Your task to perform on an android device: find which apps use the phone's location Image 0: 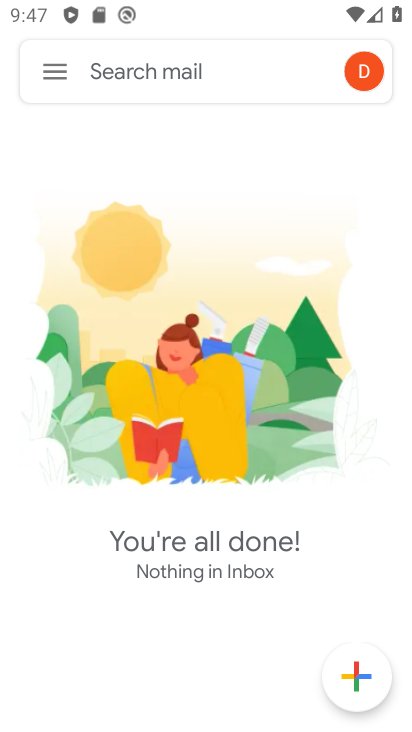
Step 0: press home button
Your task to perform on an android device: find which apps use the phone's location Image 1: 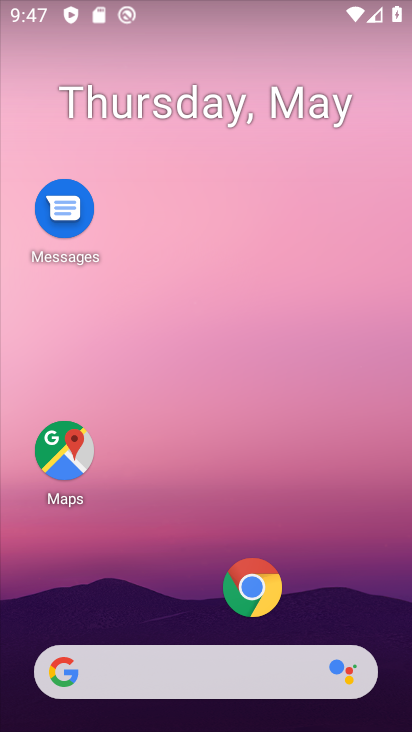
Step 1: drag from (177, 633) to (272, 34)
Your task to perform on an android device: find which apps use the phone's location Image 2: 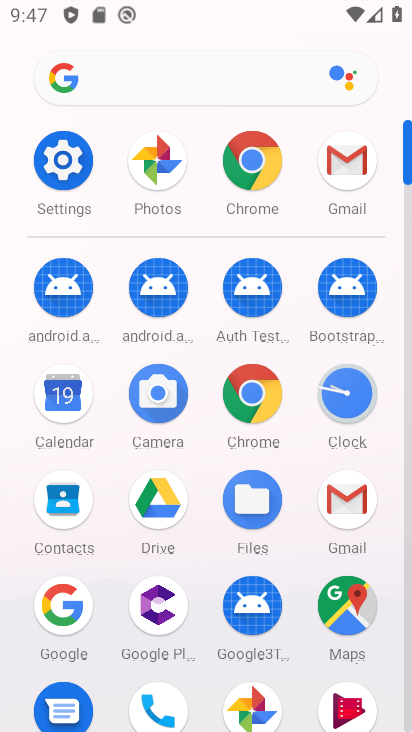
Step 2: click (74, 171)
Your task to perform on an android device: find which apps use the phone's location Image 3: 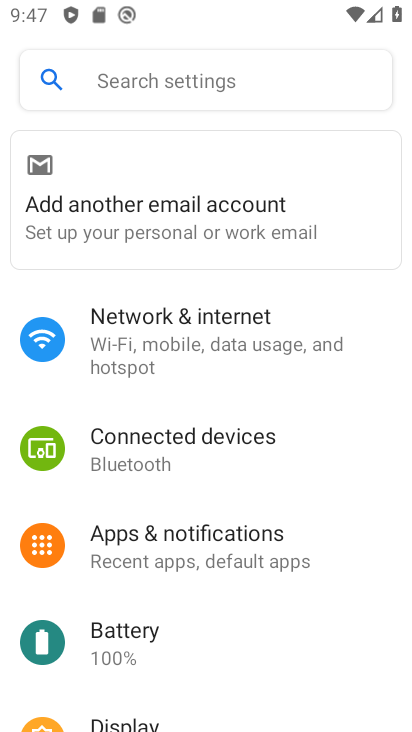
Step 3: drag from (152, 612) to (127, 170)
Your task to perform on an android device: find which apps use the phone's location Image 4: 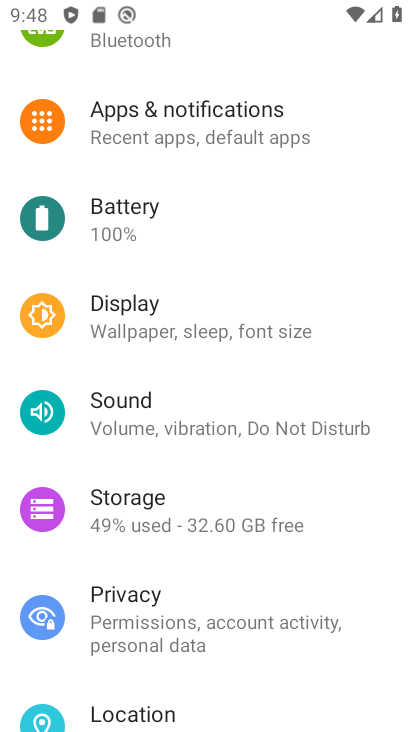
Step 4: click (135, 701)
Your task to perform on an android device: find which apps use the phone's location Image 5: 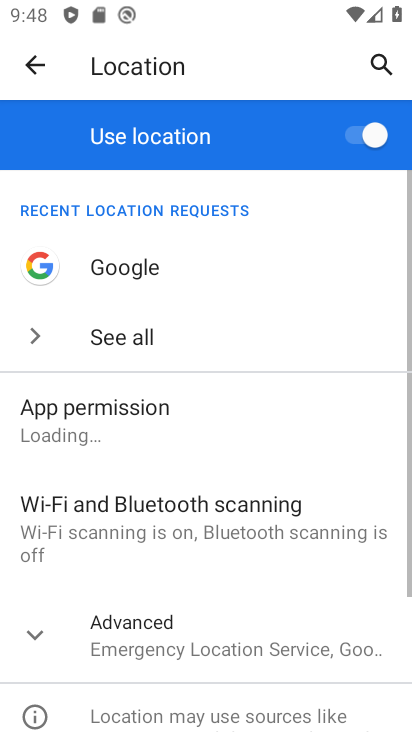
Step 5: click (106, 430)
Your task to perform on an android device: find which apps use the phone's location Image 6: 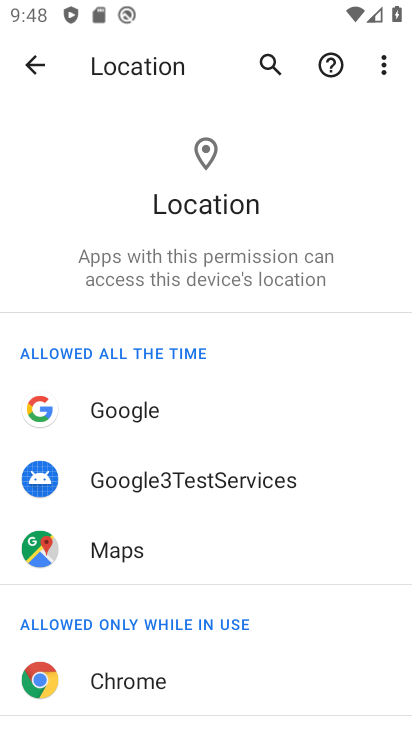
Step 6: task complete